Your task to perform on an android device: delete browsing data in the chrome app Image 0: 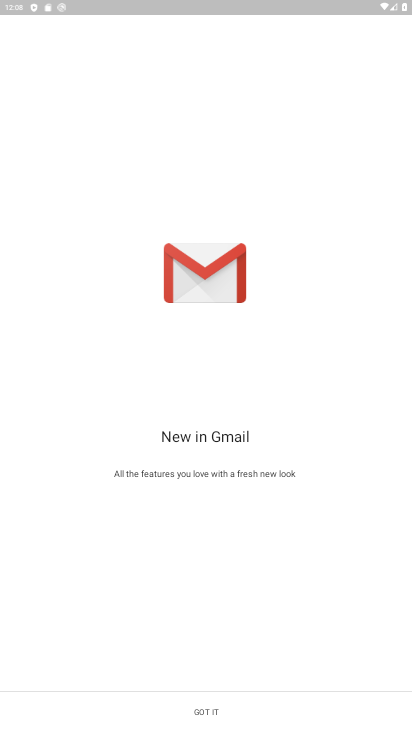
Step 0: press home button
Your task to perform on an android device: delete browsing data in the chrome app Image 1: 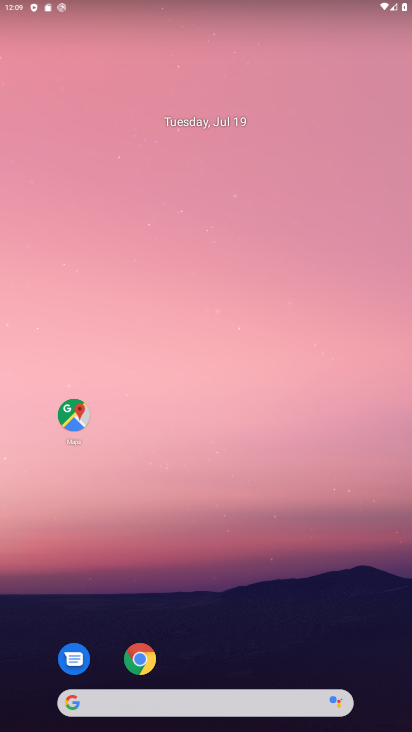
Step 1: click (141, 660)
Your task to perform on an android device: delete browsing data in the chrome app Image 2: 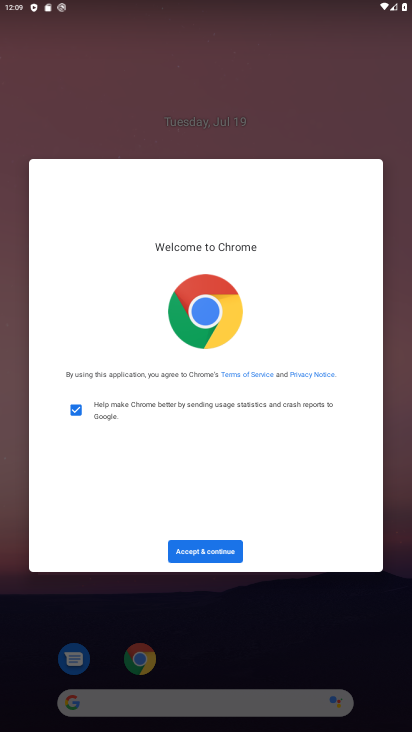
Step 2: click (213, 550)
Your task to perform on an android device: delete browsing data in the chrome app Image 3: 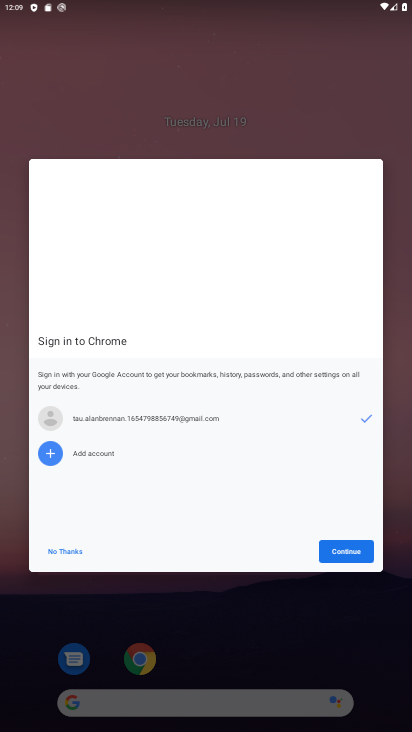
Step 3: click (342, 551)
Your task to perform on an android device: delete browsing data in the chrome app Image 4: 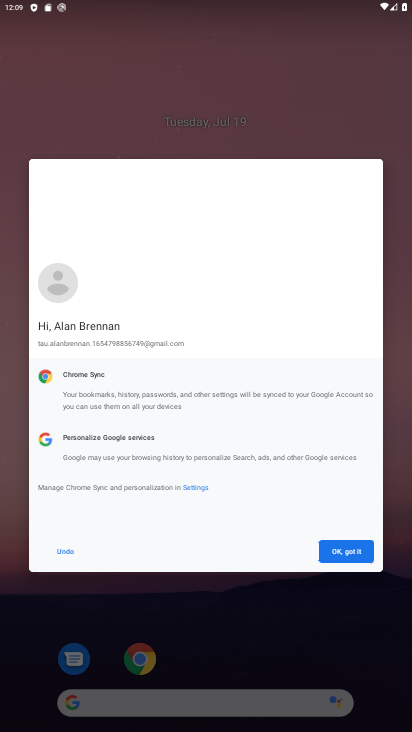
Step 4: click (342, 551)
Your task to perform on an android device: delete browsing data in the chrome app Image 5: 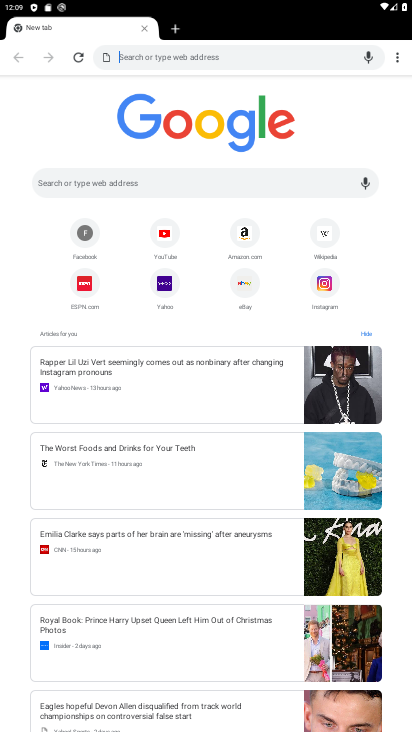
Step 5: click (398, 56)
Your task to perform on an android device: delete browsing data in the chrome app Image 6: 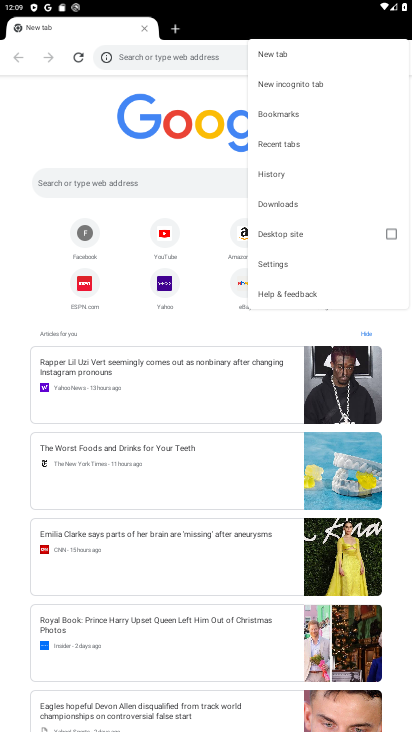
Step 6: click (279, 267)
Your task to perform on an android device: delete browsing data in the chrome app Image 7: 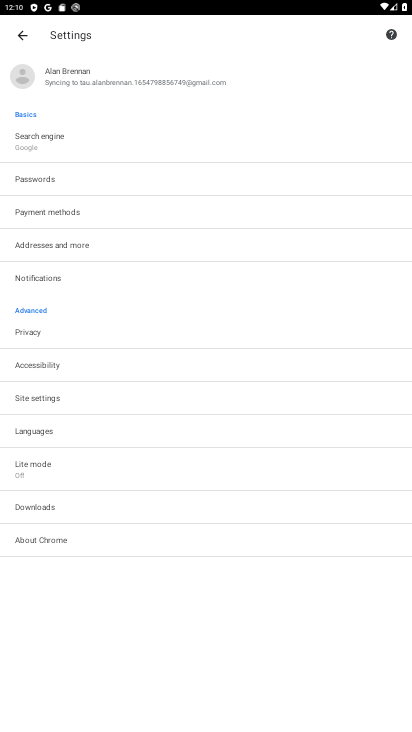
Step 7: click (37, 333)
Your task to perform on an android device: delete browsing data in the chrome app Image 8: 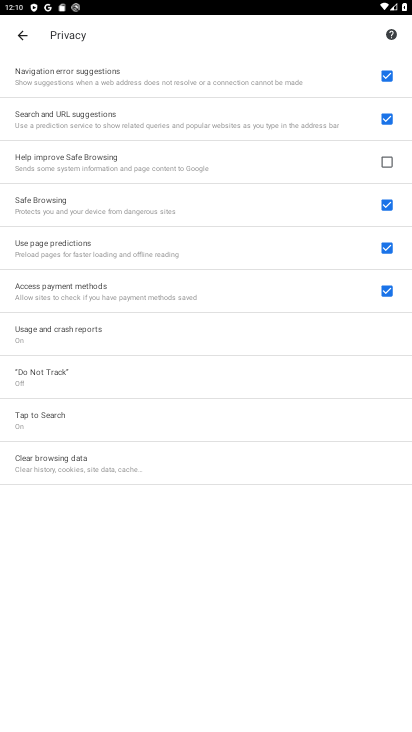
Step 8: click (55, 460)
Your task to perform on an android device: delete browsing data in the chrome app Image 9: 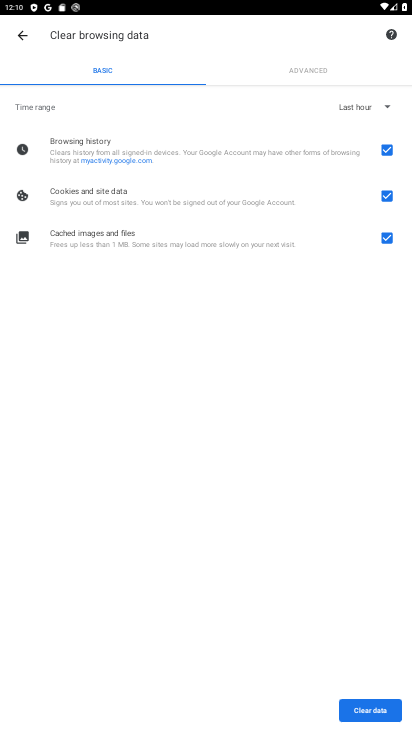
Step 9: click (381, 707)
Your task to perform on an android device: delete browsing data in the chrome app Image 10: 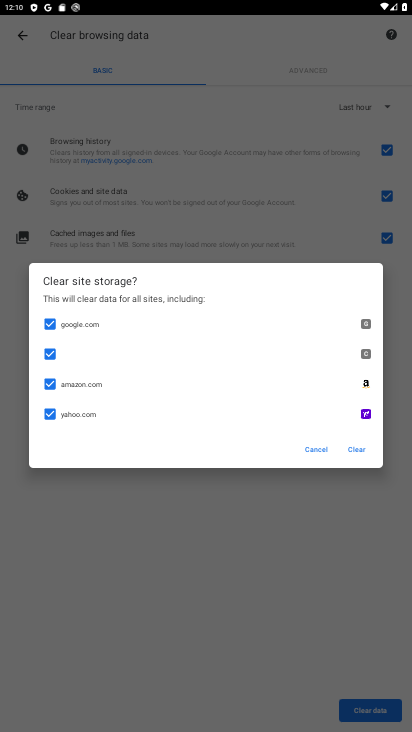
Step 10: click (357, 447)
Your task to perform on an android device: delete browsing data in the chrome app Image 11: 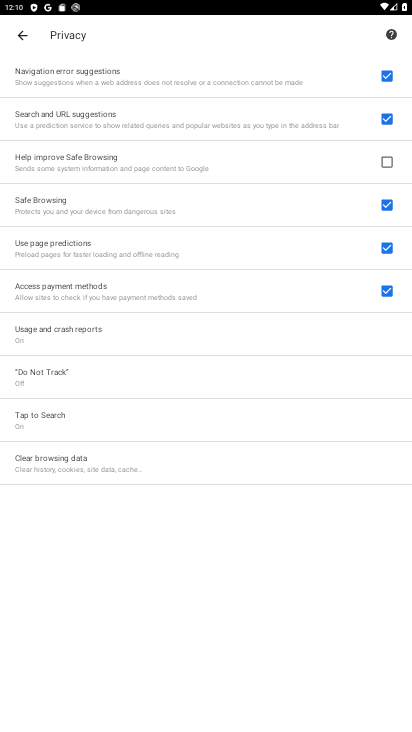
Step 11: task complete